Your task to perform on an android device: What's on my calendar tomorrow? Image 0: 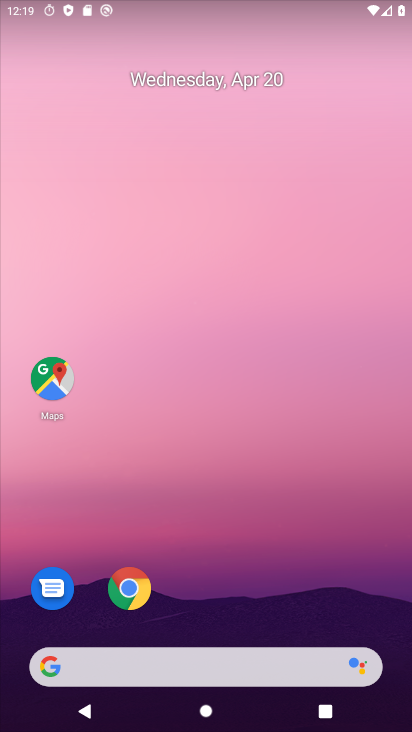
Step 0: drag from (201, 634) to (184, 61)
Your task to perform on an android device: What's on my calendar tomorrow? Image 1: 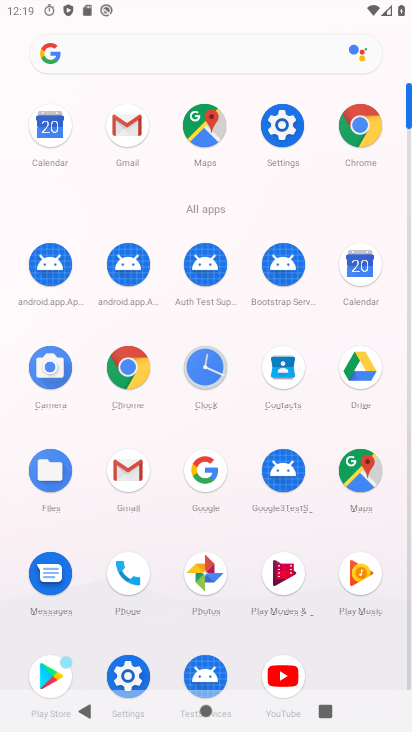
Step 1: click (359, 276)
Your task to perform on an android device: What's on my calendar tomorrow? Image 2: 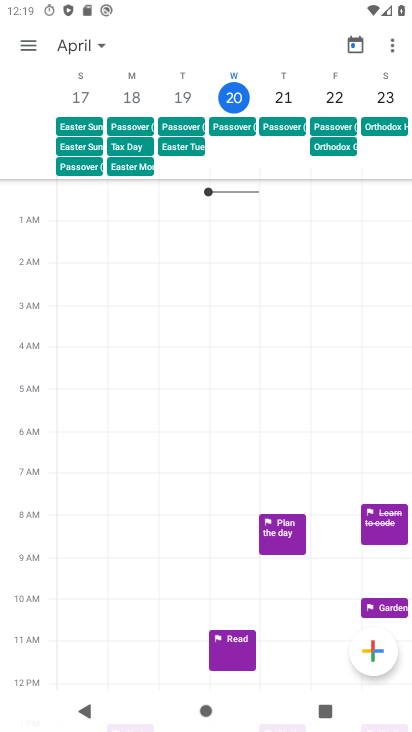
Step 2: click (282, 97)
Your task to perform on an android device: What's on my calendar tomorrow? Image 3: 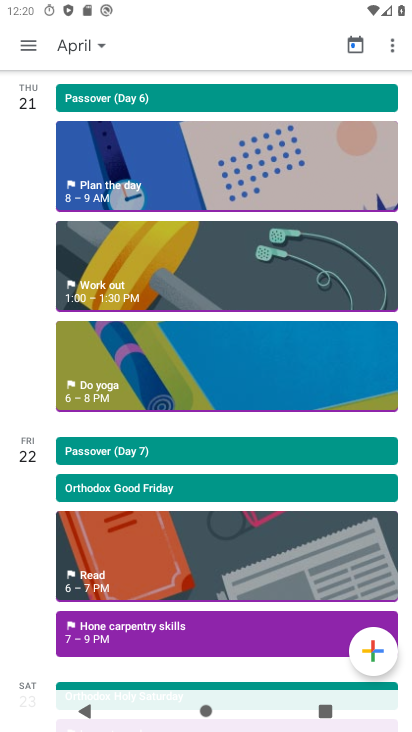
Step 3: task complete